Your task to perform on an android device: Open my contact list Image 0: 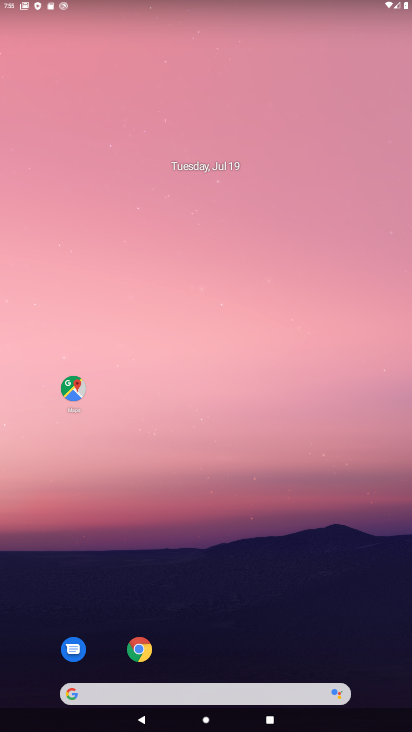
Step 0: drag from (189, 658) to (191, 149)
Your task to perform on an android device: Open my contact list Image 1: 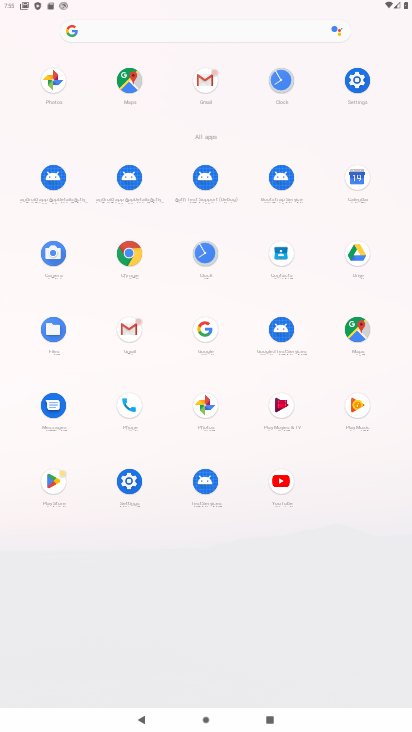
Step 1: click (282, 254)
Your task to perform on an android device: Open my contact list Image 2: 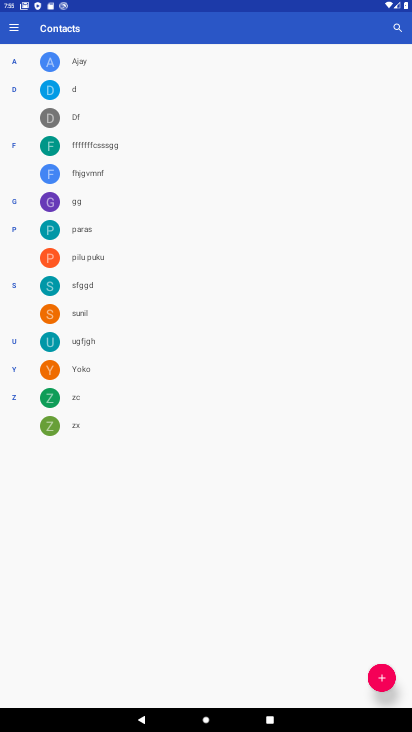
Step 2: task complete